Your task to perform on an android device: Go to Android settings Image 0: 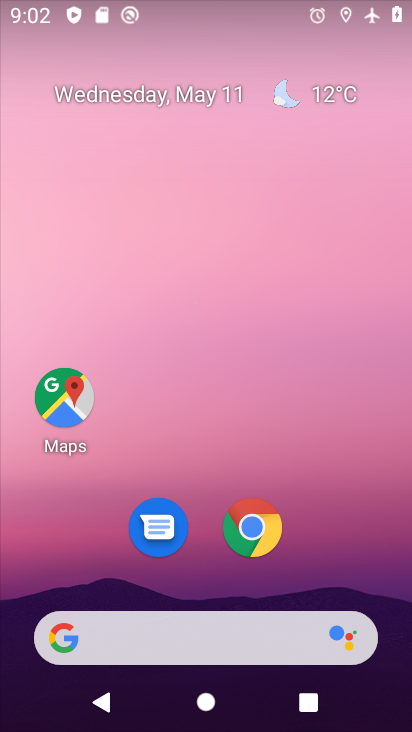
Step 0: drag from (371, 554) to (280, 132)
Your task to perform on an android device: Go to Android settings Image 1: 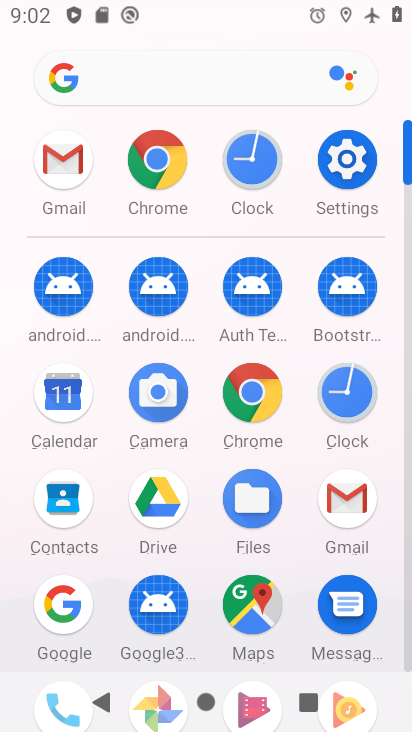
Step 1: click (363, 162)
Your task to perform on an android device: Go to Android settings Image 2: 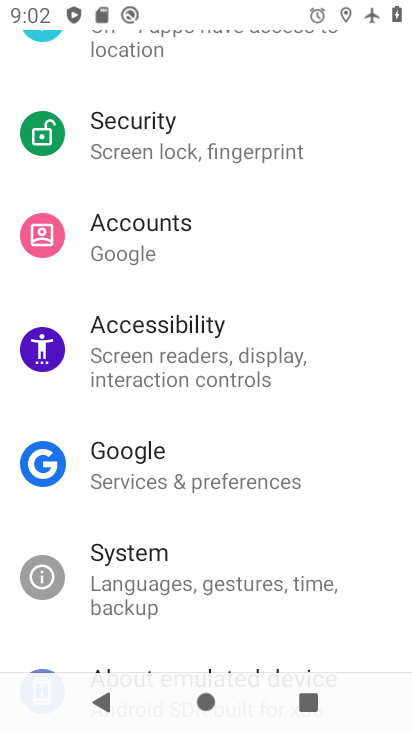
Step 2: task complete